Your task to perform on an android device: all mails in gmail Image 0: 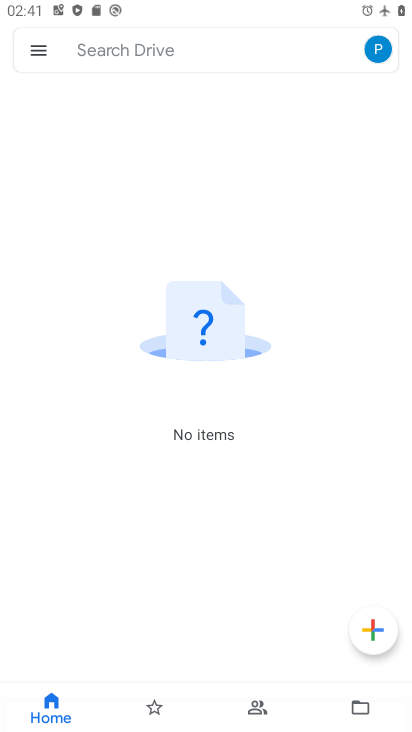
Step 0: press home button
Your task to perform on an android device: all mails in gmail Image 1: 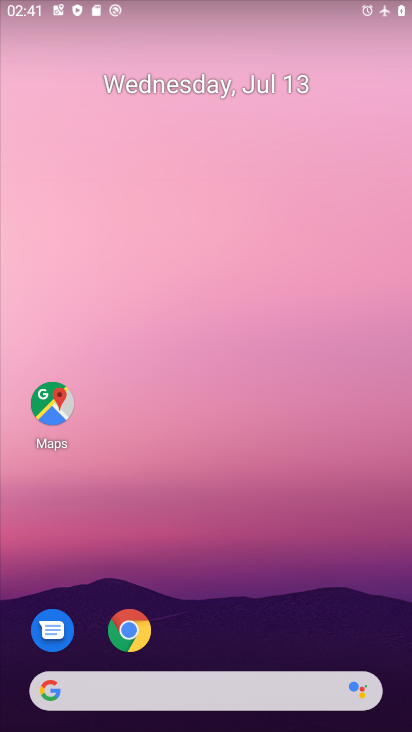
Step 1: drag from (205, 637) to (175, 182)
Your task to perform on an android device: all mails in gmail Image 2: 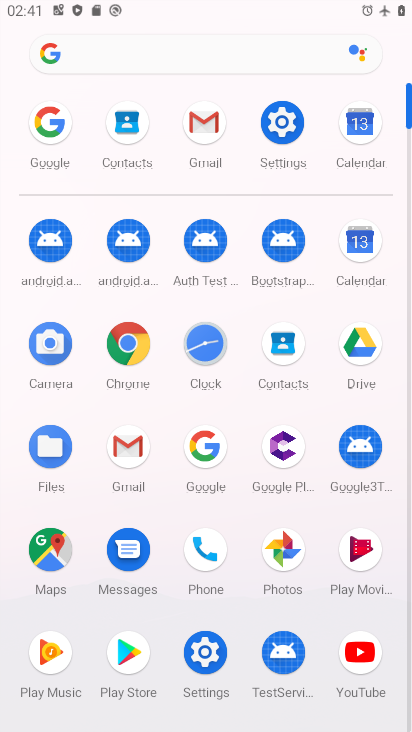
Step 2: click (200, 125)
Your task to perform on an android device: all mails in gmail Image 3: 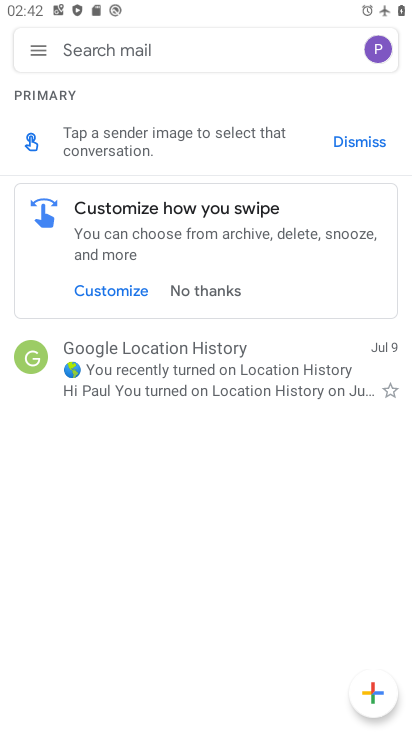
Step 3: click (45, 52)
Your task to perform on an android device: all mails in gmail Image 4: 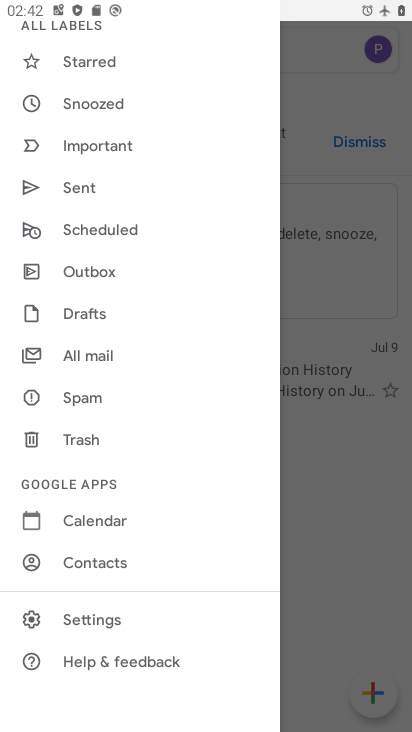
Step 4: click (105, 352)
Your task to perform on an android device: all mails in gmail Image 5: 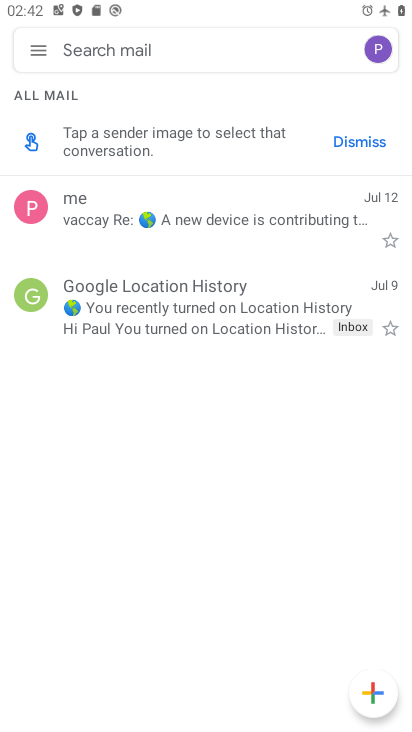
Step 5: task complete